Your task to perform on an android device: Go to battery settings Image 0: 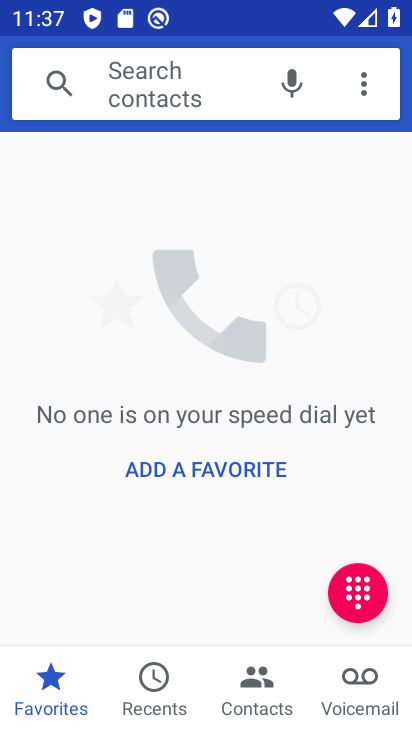
Step 0: press home button
Your task to perform on an android device: Go to battery settings Image 1: 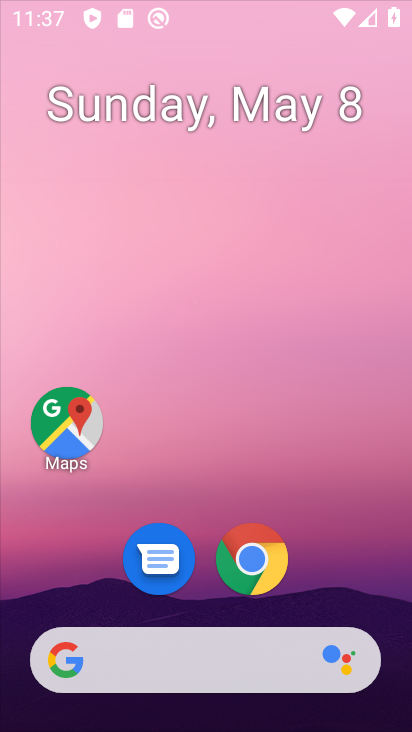
Step 1: drag from (177, 543) to (264, 35)
Your task to perform on an android device: Go to battery settings Image 2: 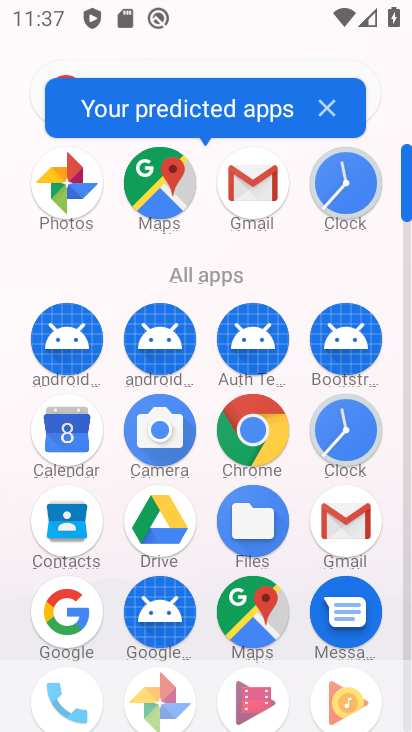
Step 2: drag from (210, 561) to (202, 215)
Your task to perform on an android device: Go to battery settings Image 3: 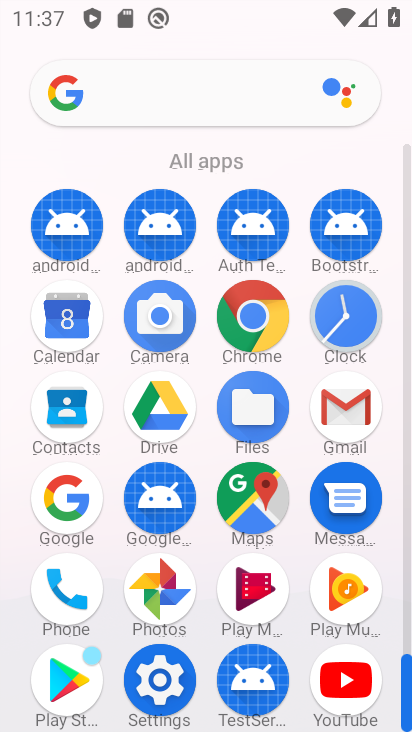
Step 3: click (161, 684)
Your task to perform on an android device: Go to battery settings Image 4: 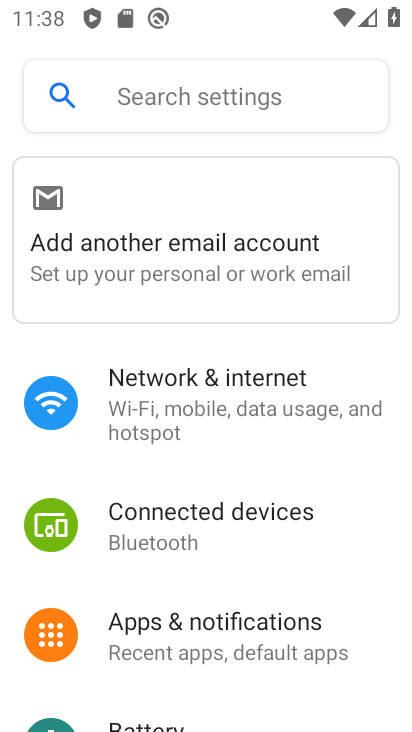
Step 4: drag from (201, 582) to (246, 233)
Your task to perform on an android device: Go to battery settings Image 5: 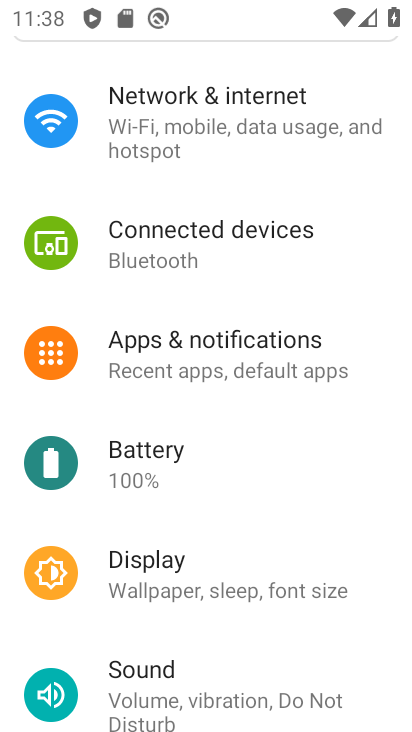
Step 5: click (150, 469)
Your task to perform on an android device: Go to battery settings Image 6: 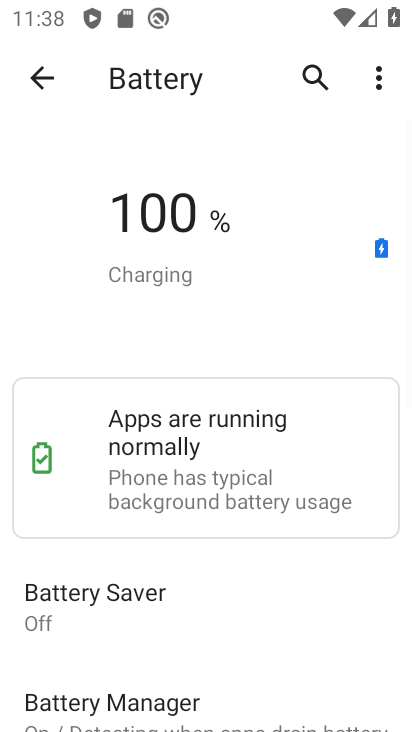
Step 6: task complete